Your task to perform on an android device: toggle improve location accuracy Image 0: 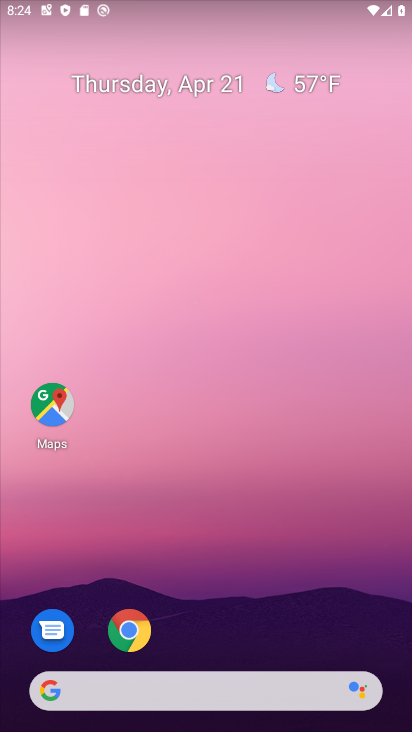
Step 0: drag from (311, 619) to (300, 71)
Your task to perform on an android device: toggle improve location accuracy Image 1: 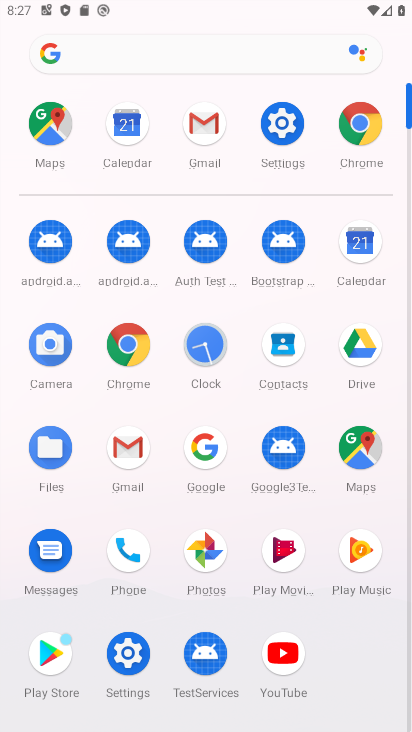
Step 1: click (126, 650)
Your task to perform on an android device: toggle improve location accuracy Image 2: 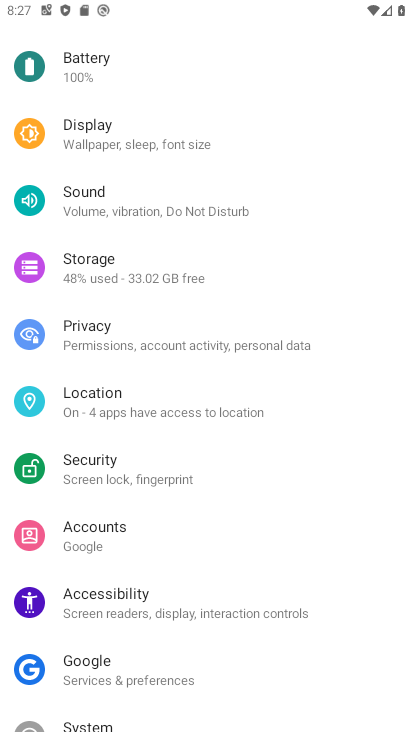
Step 2: click (135, 412)
Your task to perform on an android device: toggle improve location accuracy Image 3: 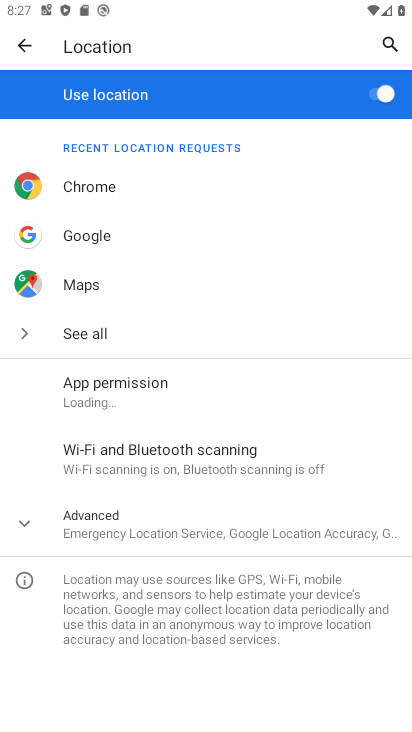
Step 3: click (152, 511)
Your task to perform on an android device: toggle improve location accuracy Image 4: 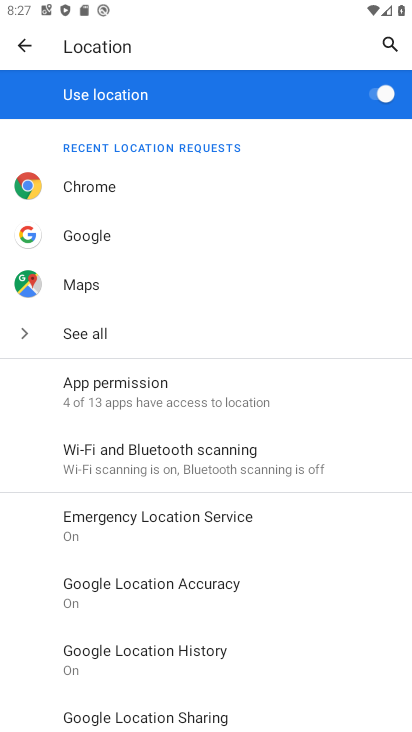
Step 4: click (227, 594)
Your task to perform on an android device: toggle improve location accuracy Image 5: 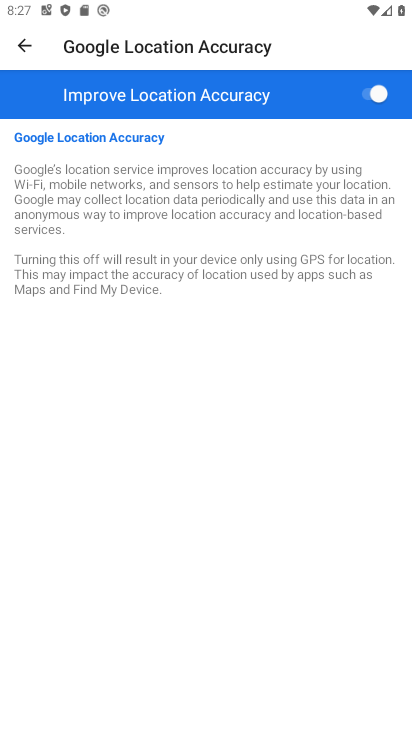
Step 5: click (353, 94)
Your task to perform on an android device: toggle improve location accuracy Image 6: 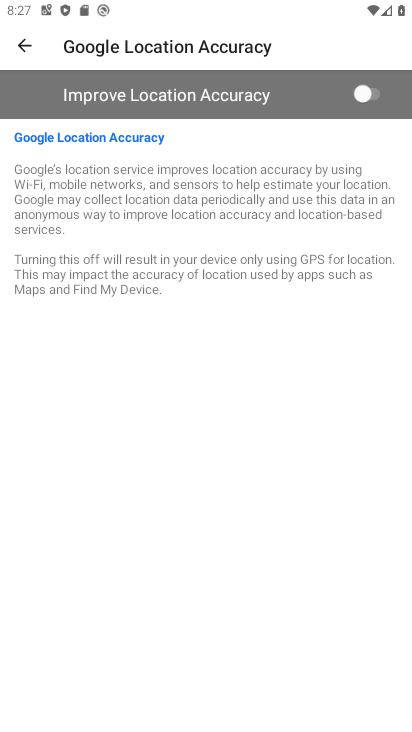
Step 6: task complete